Your task to perform on an android device: toggle show notifications on the lock screen Image 0: 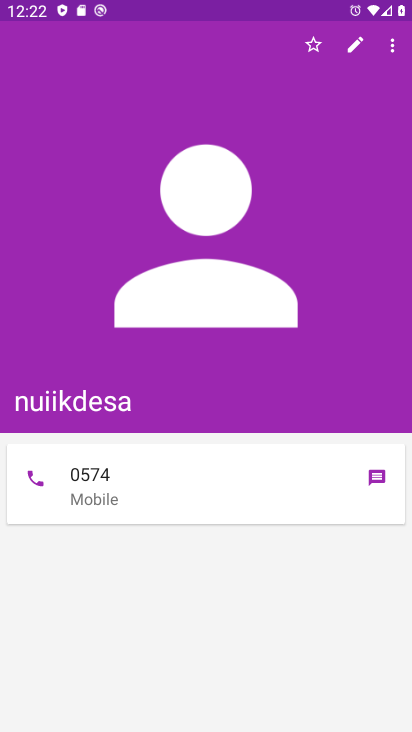
Step 0: press home button
Your task to perform on an android device: toggle show notifications on the lock screen Image 1: 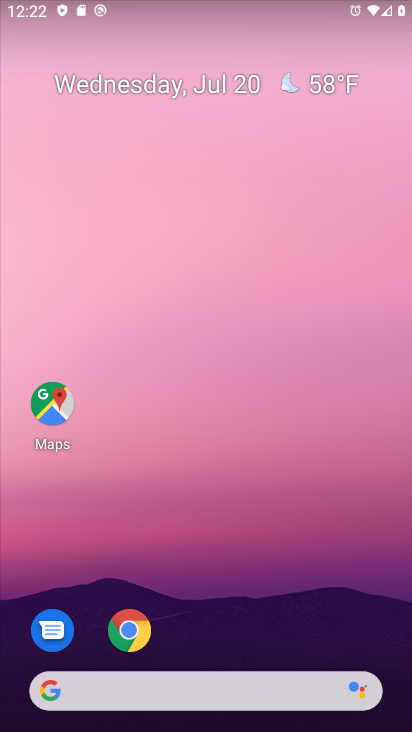
Step 1: drag from (200, 682) to (331, 167)
Your task to perform on an android device: toggle show notifications on the lock screen Image 2: 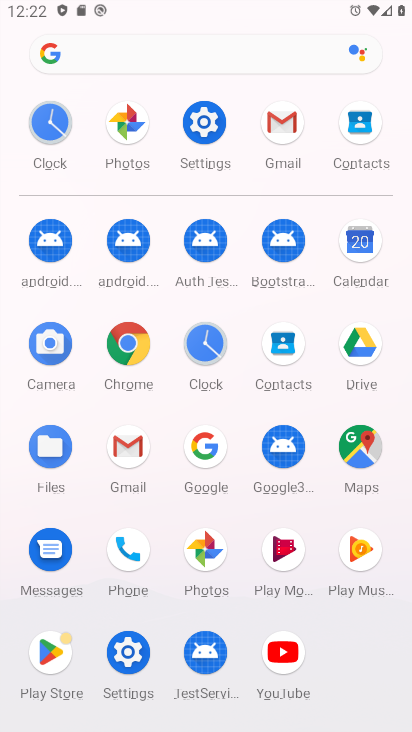
Step 2: click (202, 120)
Your task to perform on an android device: toggle show notifications on the lock screen Image 3: 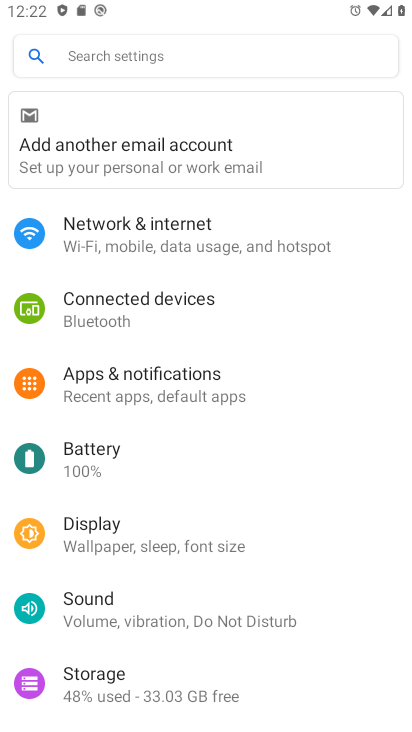
Step 3: click (179, 367)
Your task to perform on an android device: toggle show notifications on the lock screen Image 4: 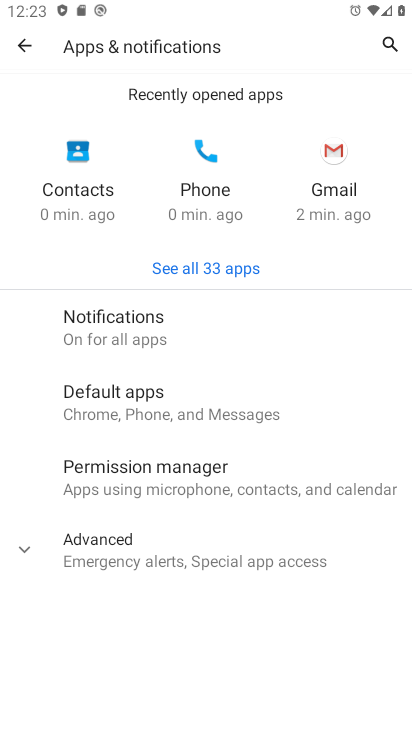
Step 4: click (137, 328)
Your task to perform on an android device: toggle show notifications on the lock screen Image 5: 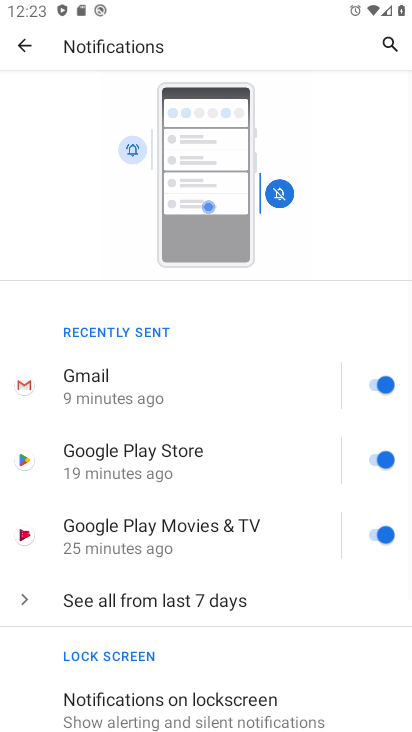
Step 5: drag from (211, 654) to (351, 285)
Your task to perform on an android device: toggle show notifications on the lock screen Image 6: 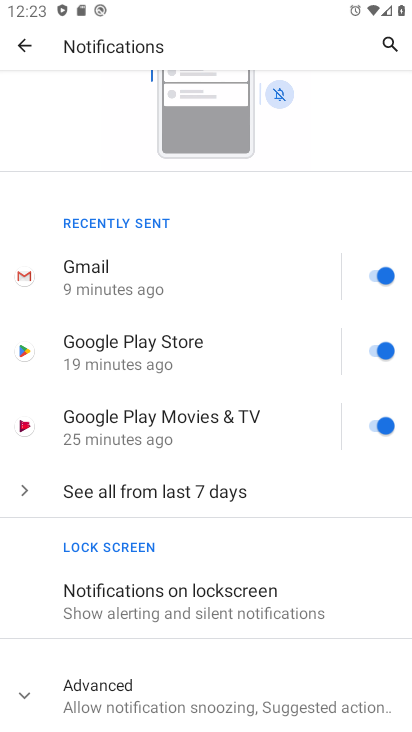
Step 6: click (207, 590)
Your task to perform on an android device: toggle show notifications on the lock screen Image 7: 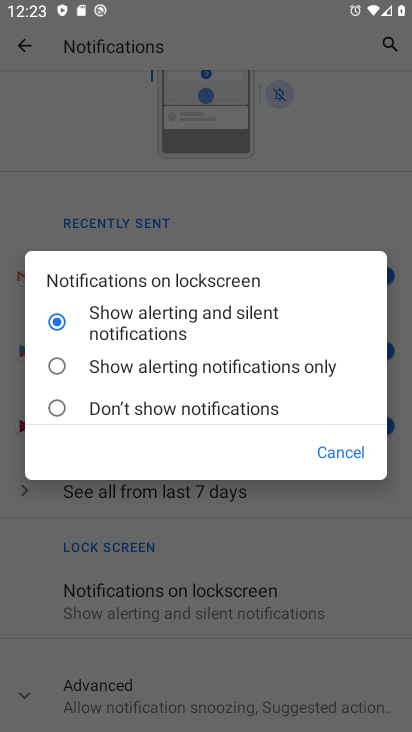
Step 7: click (57, 402)
Your task to perform on an android device: toggle show notifications on the lock screen Image 8: 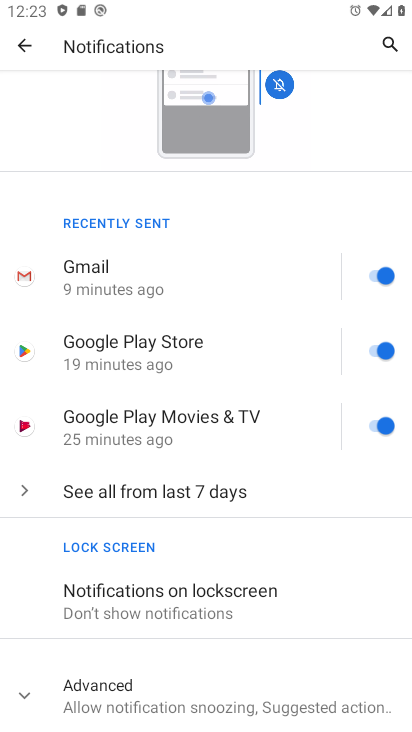
Step 8: task complete